Your task to perform on an android device: turn on the 24-hour format for clock Image 0: 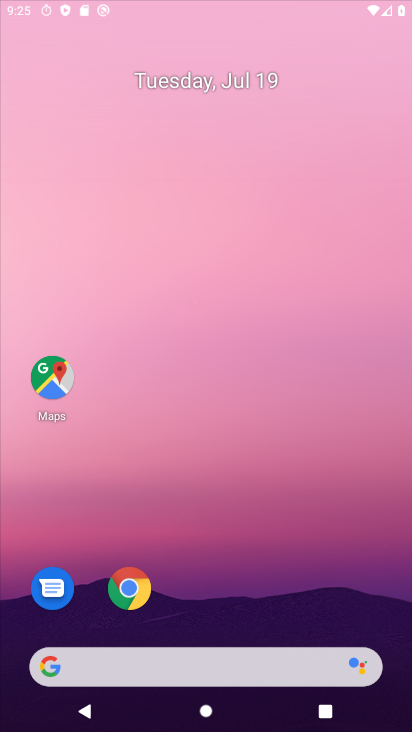
Step 0: press home button
Your task to perform on an android device: turn on the 24-hour format for clock Image 1: 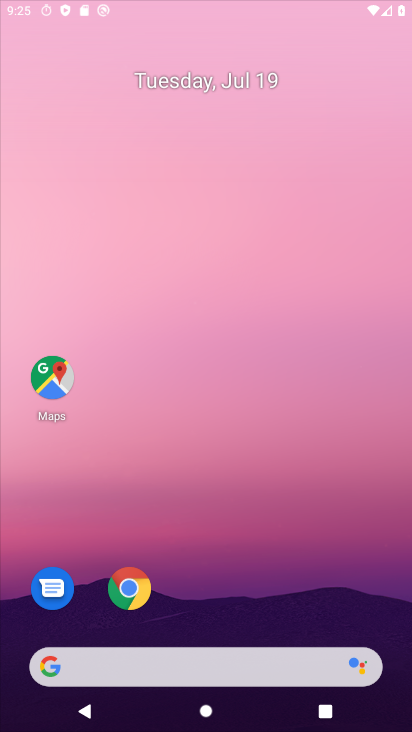
Step 1: click (120, 578)
Your task to perform on an android device: turn on the 24-hour format for clock Image 2: 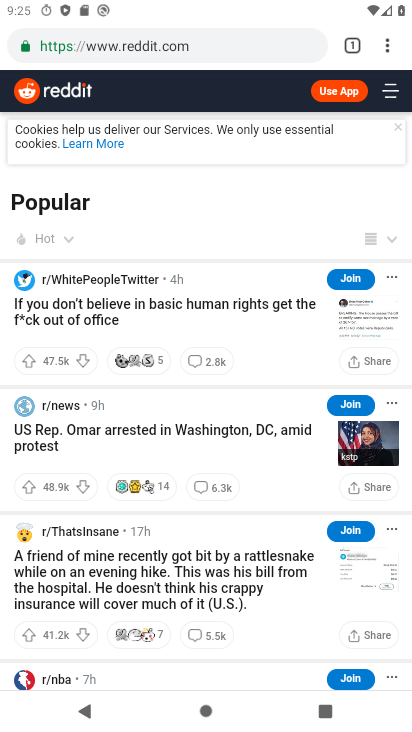
Step 2: press home button
Your task to perform on an android device: turn on the 24-hour format for clock Image 3: 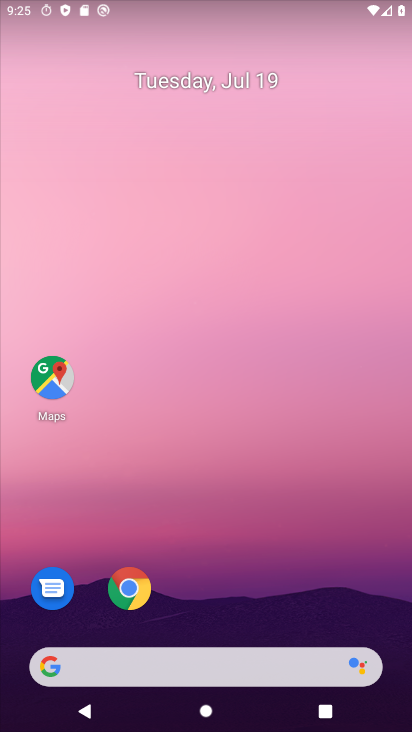
Step 3: drag from (221, 611) to (224, 95)
Your task to perform on an android device: turn on the 24-hour format for clock Image 4: 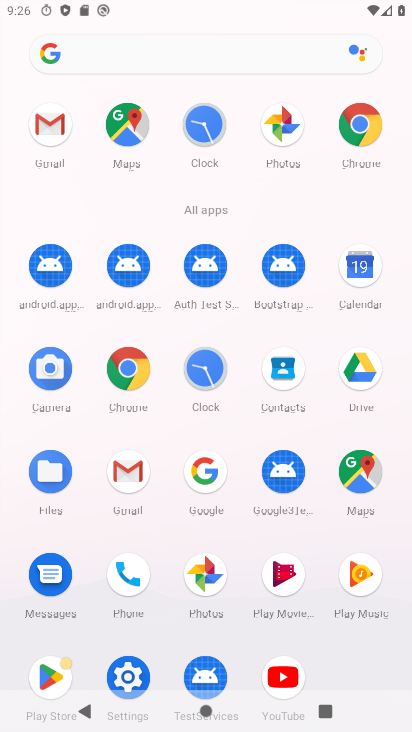
Step 4: click (204, 118)
Your task to perform on an android device: turn on the 24-hour format for clock Image 5: 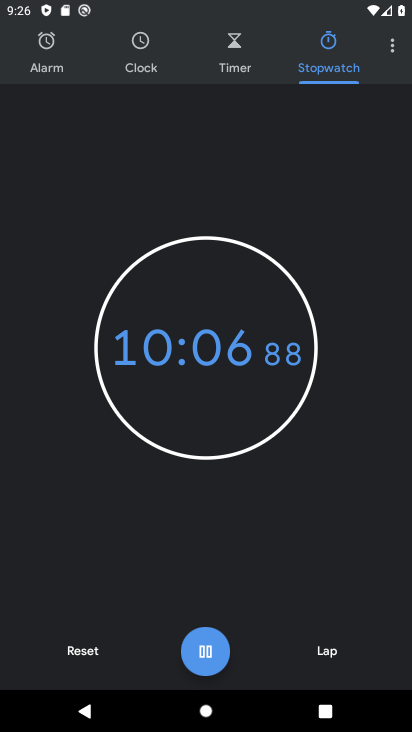
Step 5: click (394, 42)
Your task to perform on an android device: turn on the 24-hour format for clock Image 6: 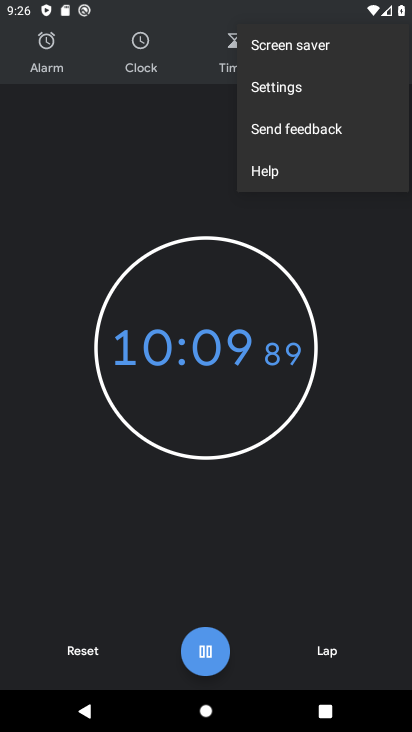
Step 6: click (319, 84)
Your task to perform on an android device: turn on the 24-hour format for clock Image 7: 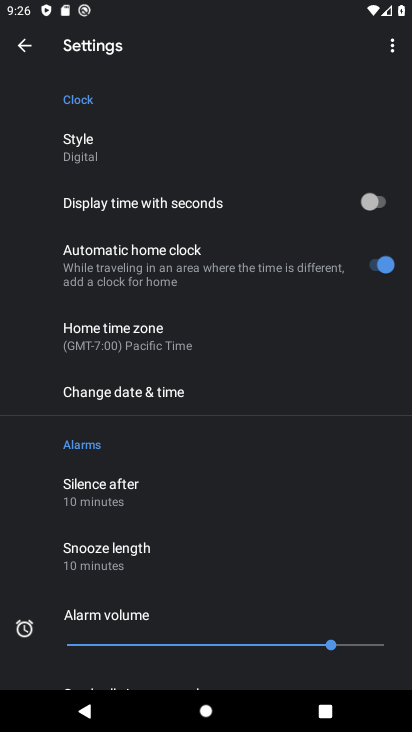
Step 7: click (193, 393)
Your task to perform on an android device: turn on the 24-hour format for clock Image 8: 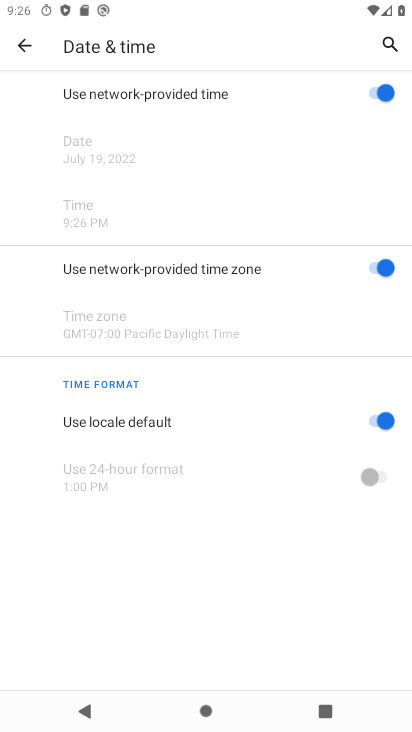
Step 8: click (373, 425)
Your task to perform on an android device: turn on the 24-hour format for clock Image 9: 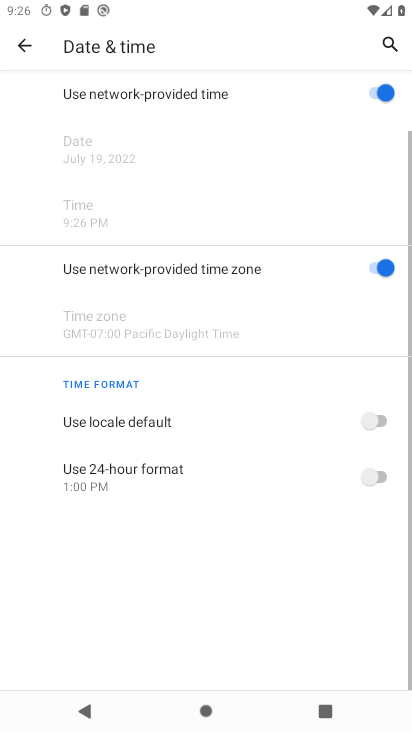
Step 9: click (380, 470)
Your task to perform on an android device: turn on the 24-hour format for clock Image 10: 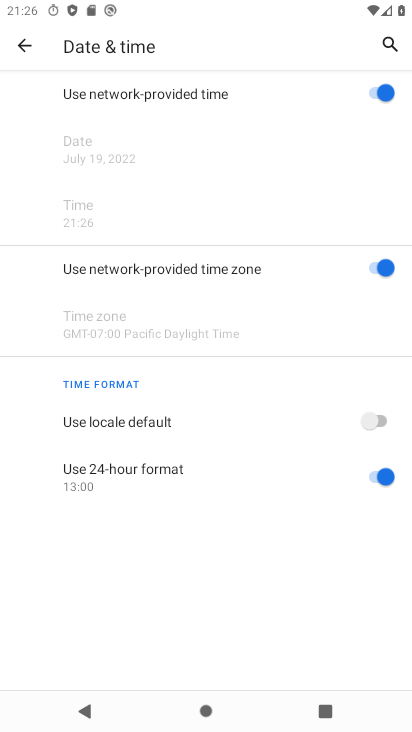
Step 10: task complete